Your task to perform on an android device: open app "Adobe Acrobat Reader" (install if not already installed), go to login, and select forgot password Image 0: 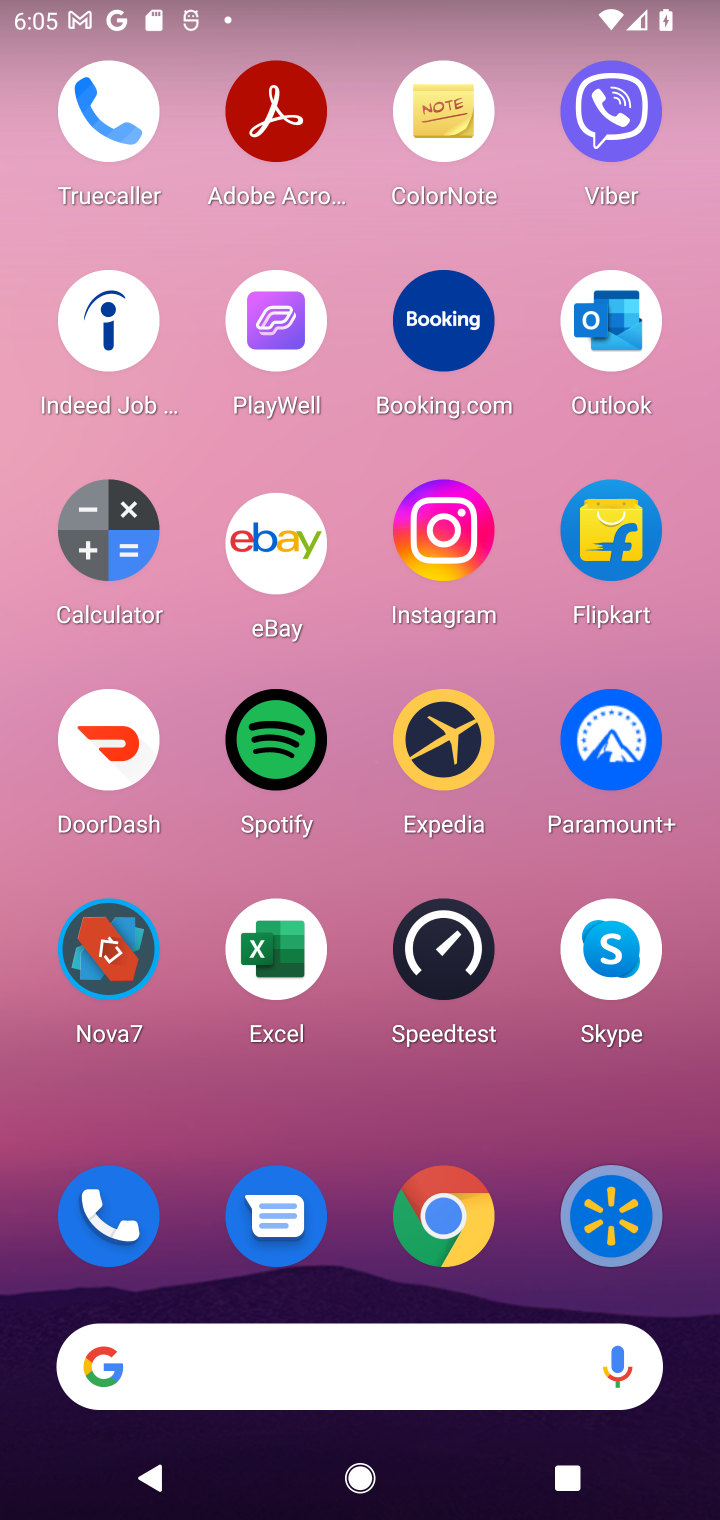
Step 0: drag from (535, 1133) to (489, 243)
Your task to perform on an android device: open app "Adobe Acrobat Reader" (install if not already installed), go to login, and select forgot password Image 1: 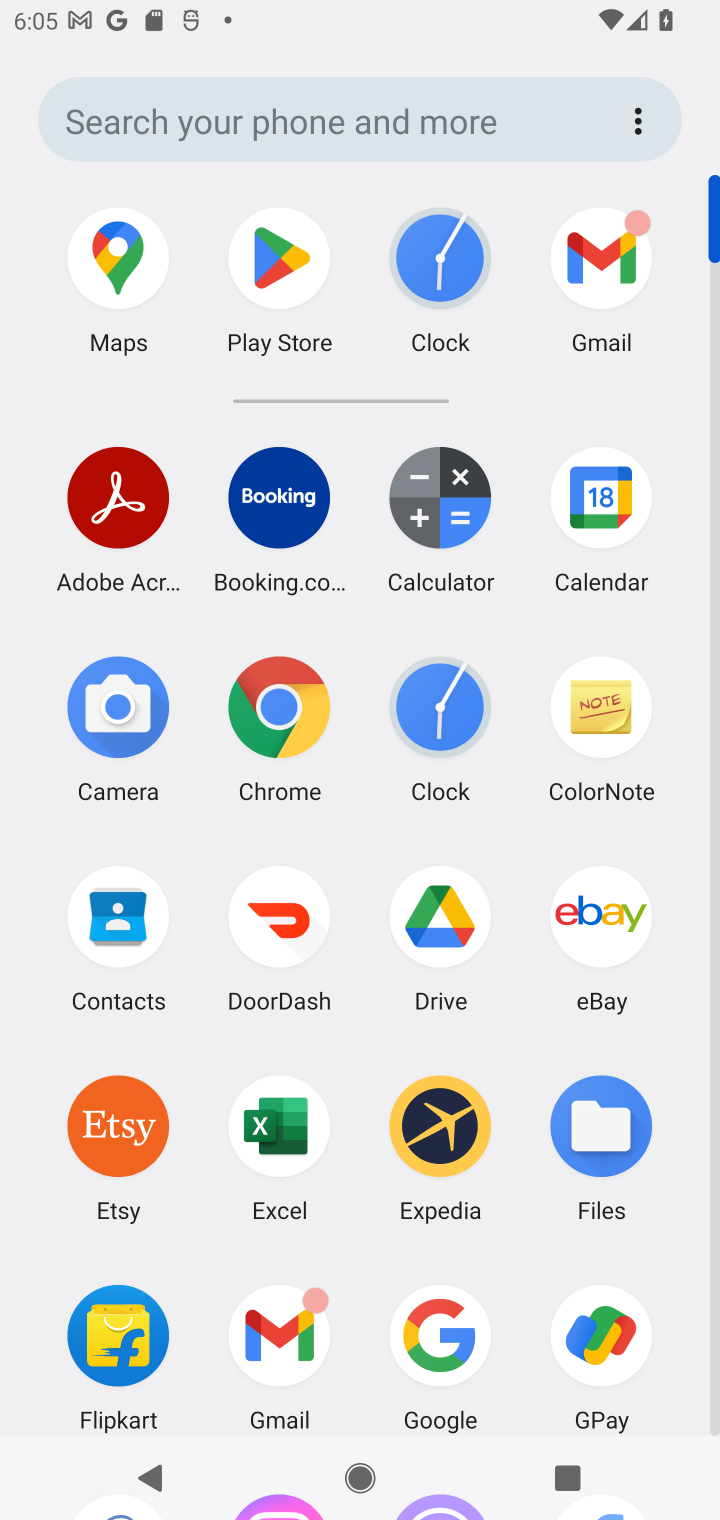
Step 1: drag from (522, 1298) to (495, 514)
Your task to perform on an android device: open app "Adobe Acrobat Reader" (install if not already installed), go to login, and select forgot password Image 2: 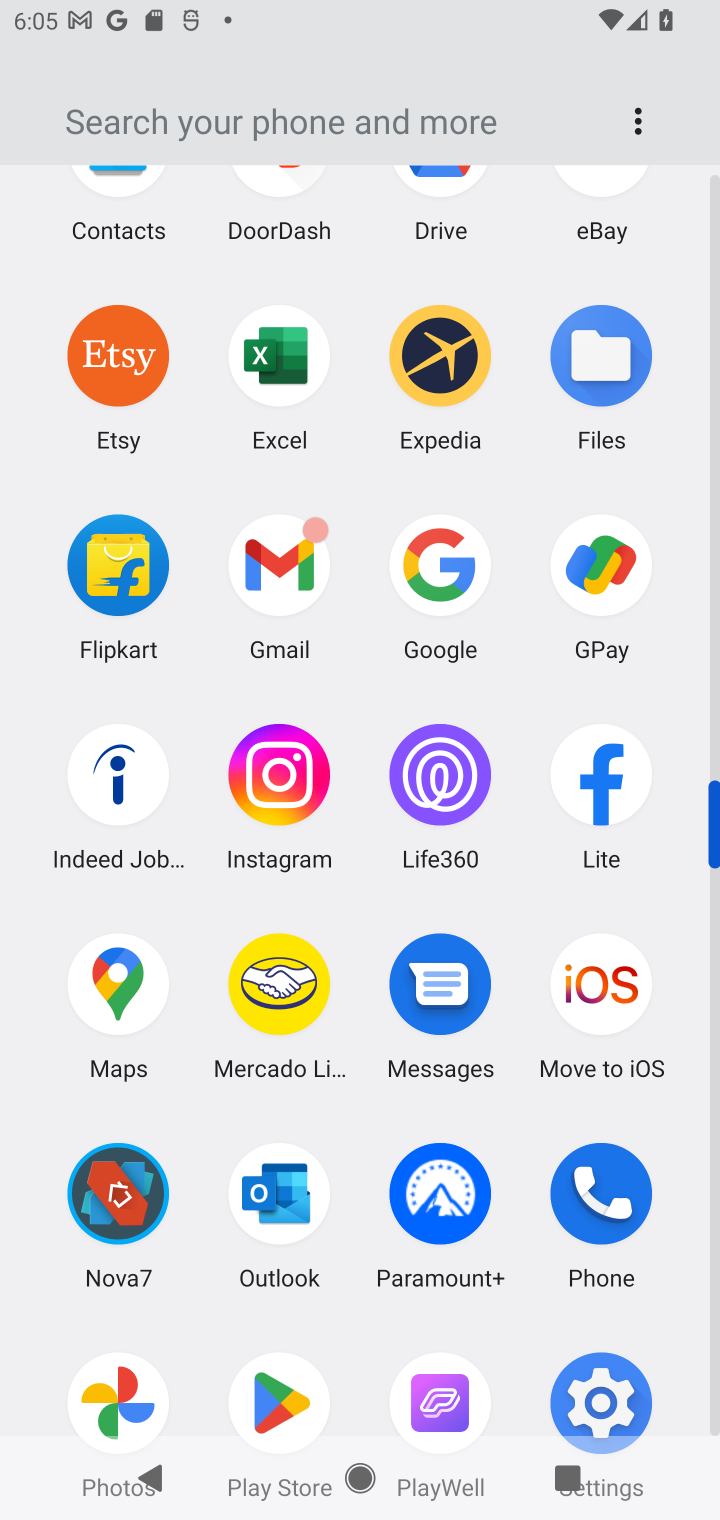
Step 2: click (281, 1401)
Your task to perform on an android device: open app "Adobe Acrobat Reader" (install if not already installed), go to login, and select forgot password Image 3: 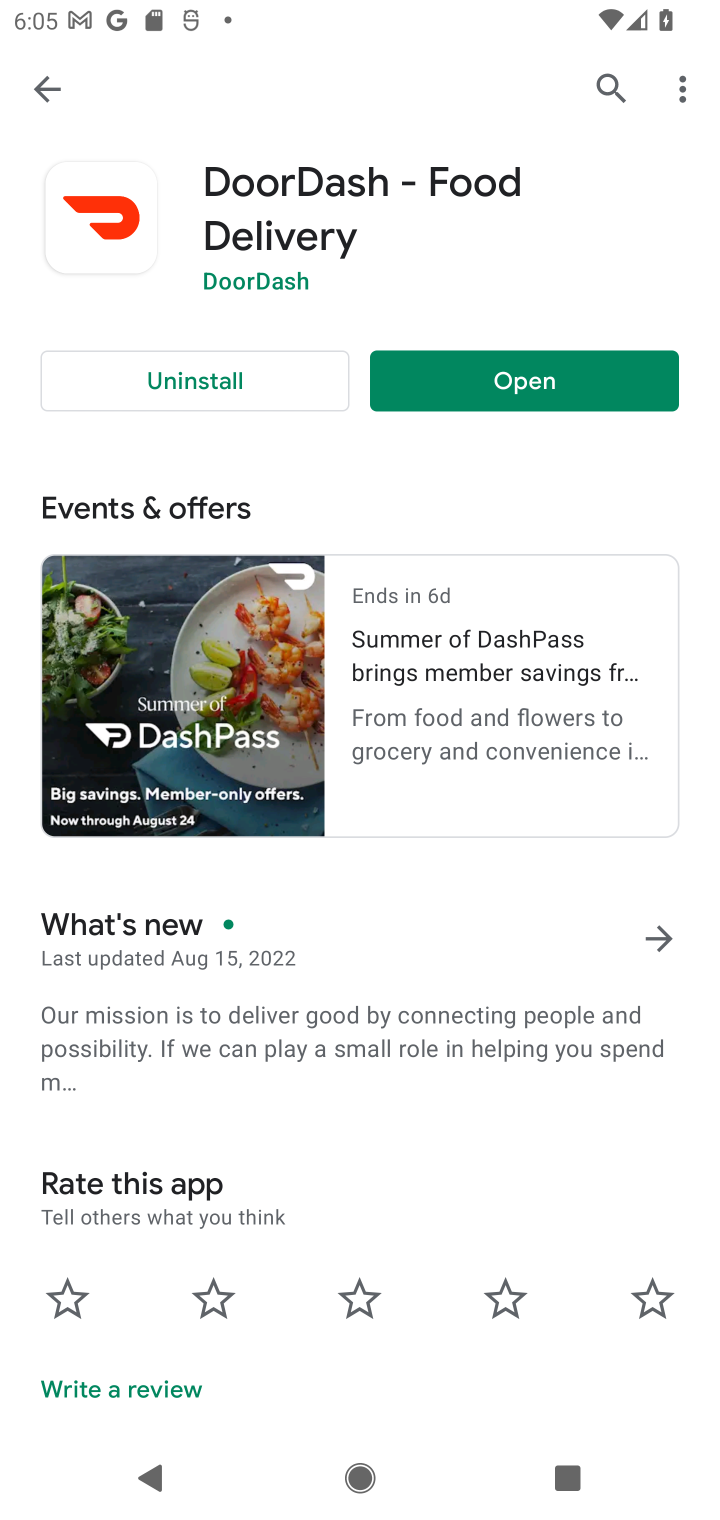
Step 3: click (611, 90)
Your task to perform on an android device: open app "Adobe Acrobat Reader" (install if not already installed), go to login, and select forgot password Image 4: 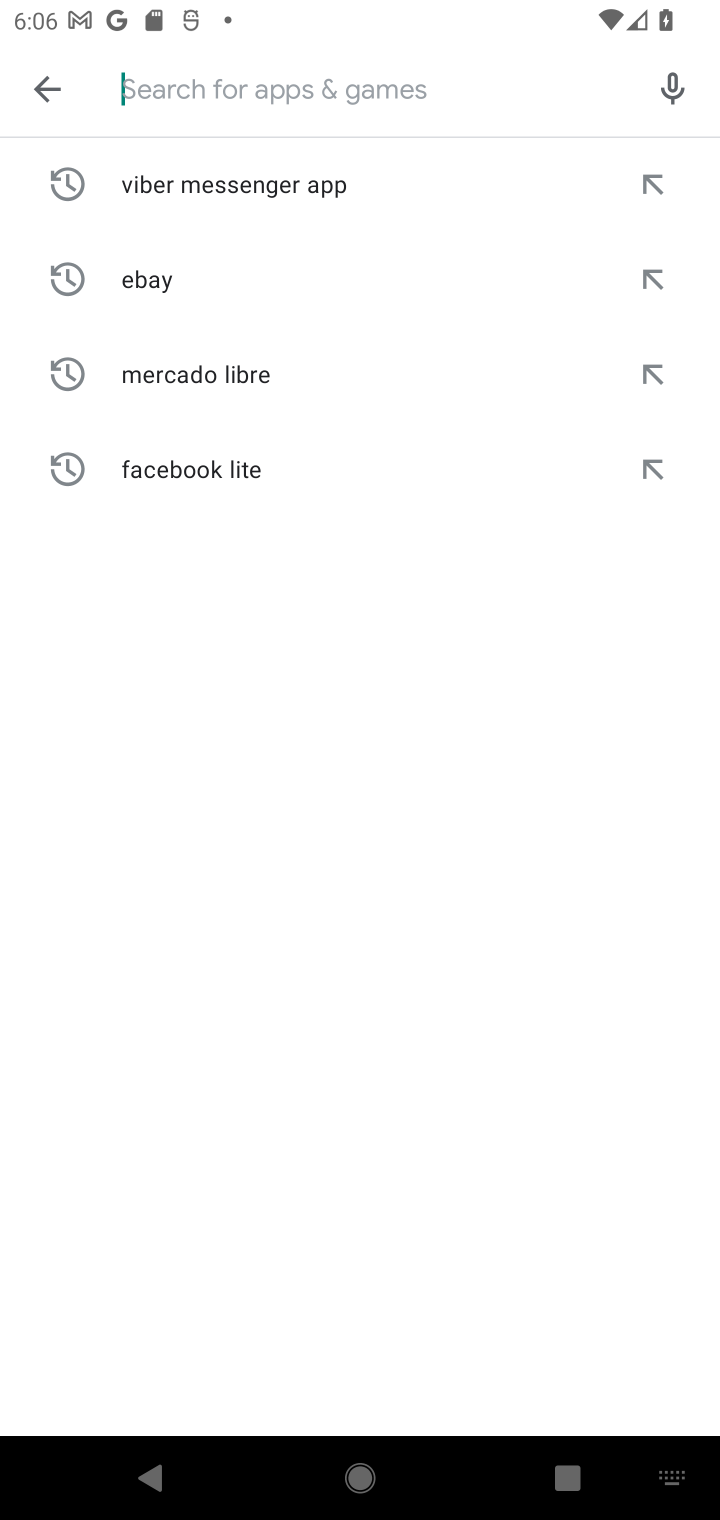
Step 4: type "Adobe Acrobat Reader"
Your task to perform on an android device: open app "Adobe Acrobat Reader" (install if not already installed), go to login, and select forgot password Image 5: 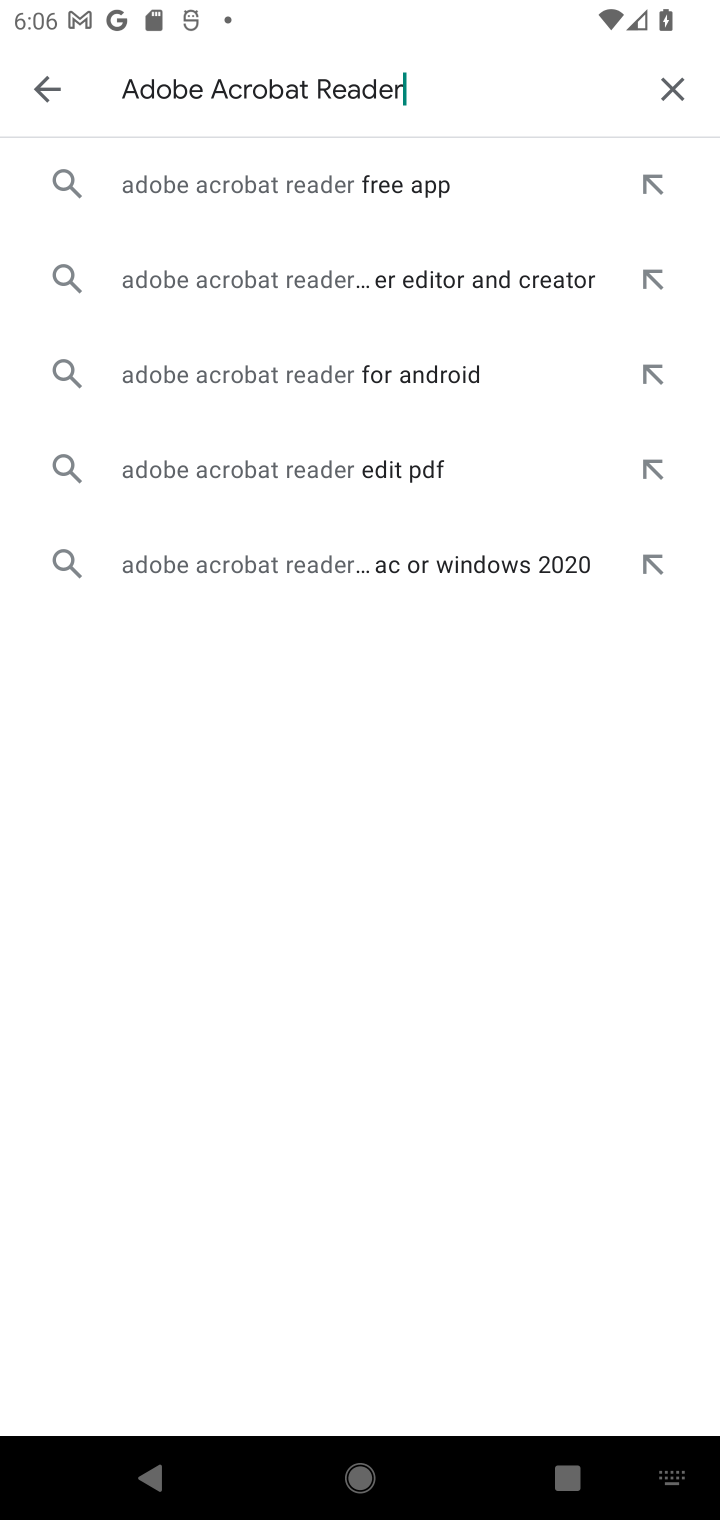
Step 5: click (202, 187)
Your task to perform on an android device: open app "Adobe Acrobat Reader" (install if not already installed), go to login, and select forgot password Image 6: 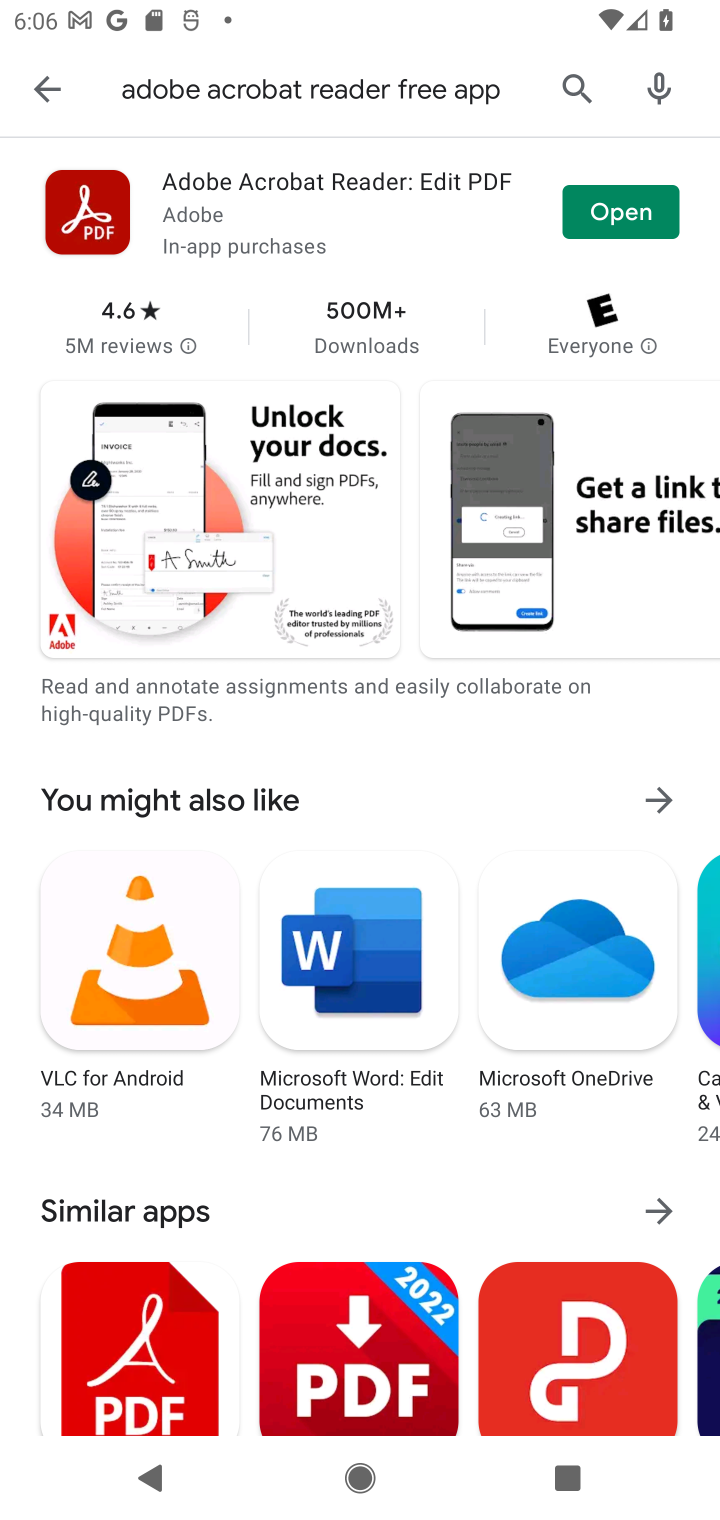
Step 6: click (618, 205)
Your task to perform on an android device: open app "Adobe Acrobat Reader" (install if not already installed), go to login, and select forgot password Image 7: 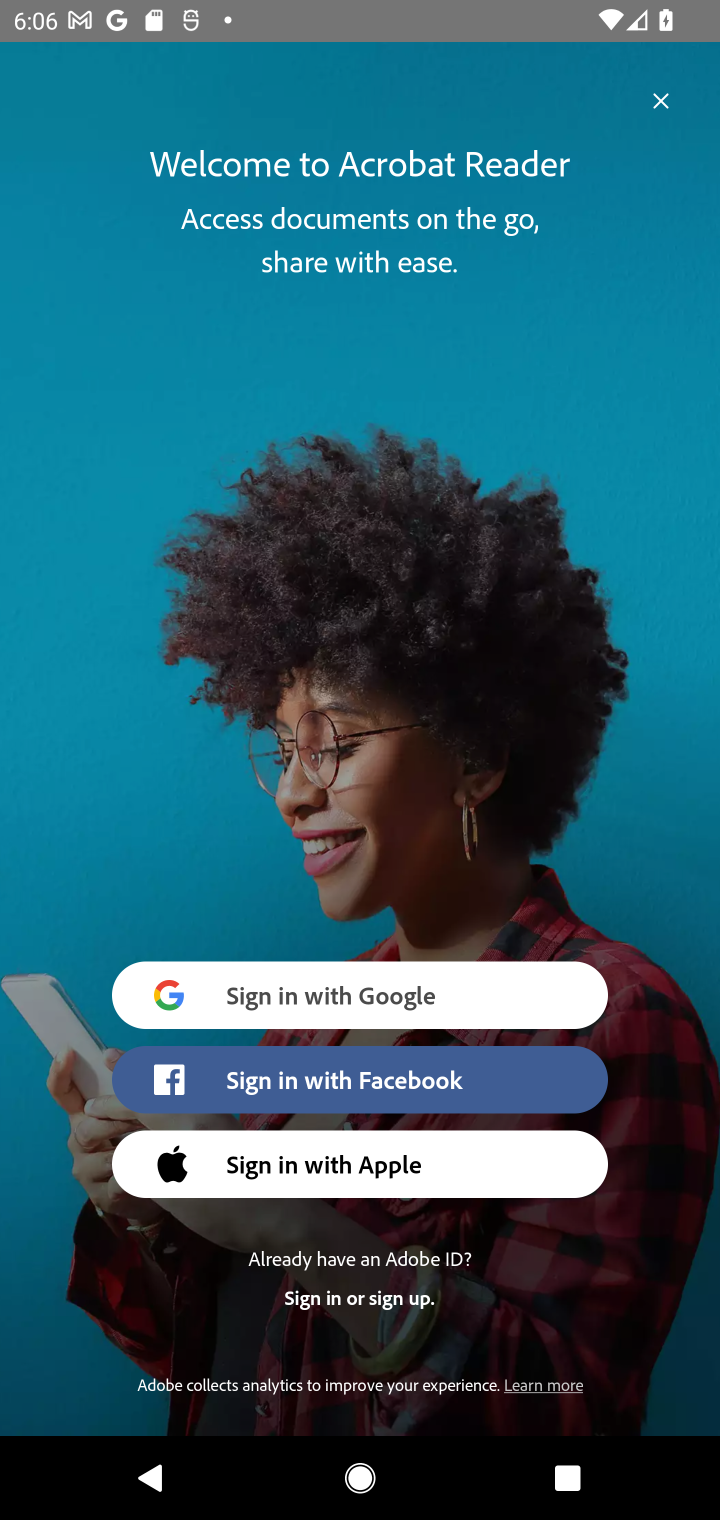
Step 7: click (323, 1303)
Your task to perform on an android device: open app "Adobe Acrobat Reader" (install if not already installed), go to login, and select forgot password Image 8: 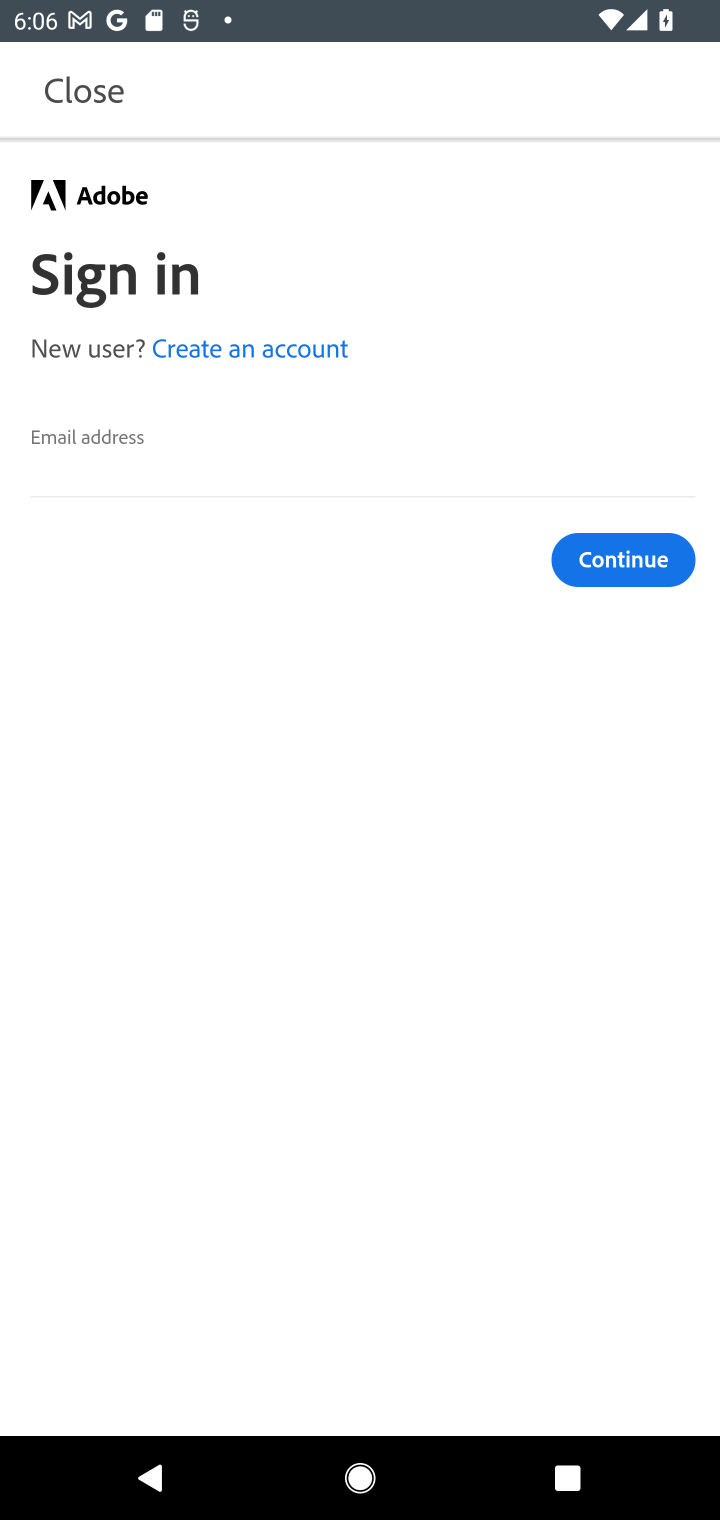
Step 8: press back button
Your task to perform on an android device: open app "Adobe Acrobat Reader" (install if not already installed), go to login, and select forgot password Image 9: 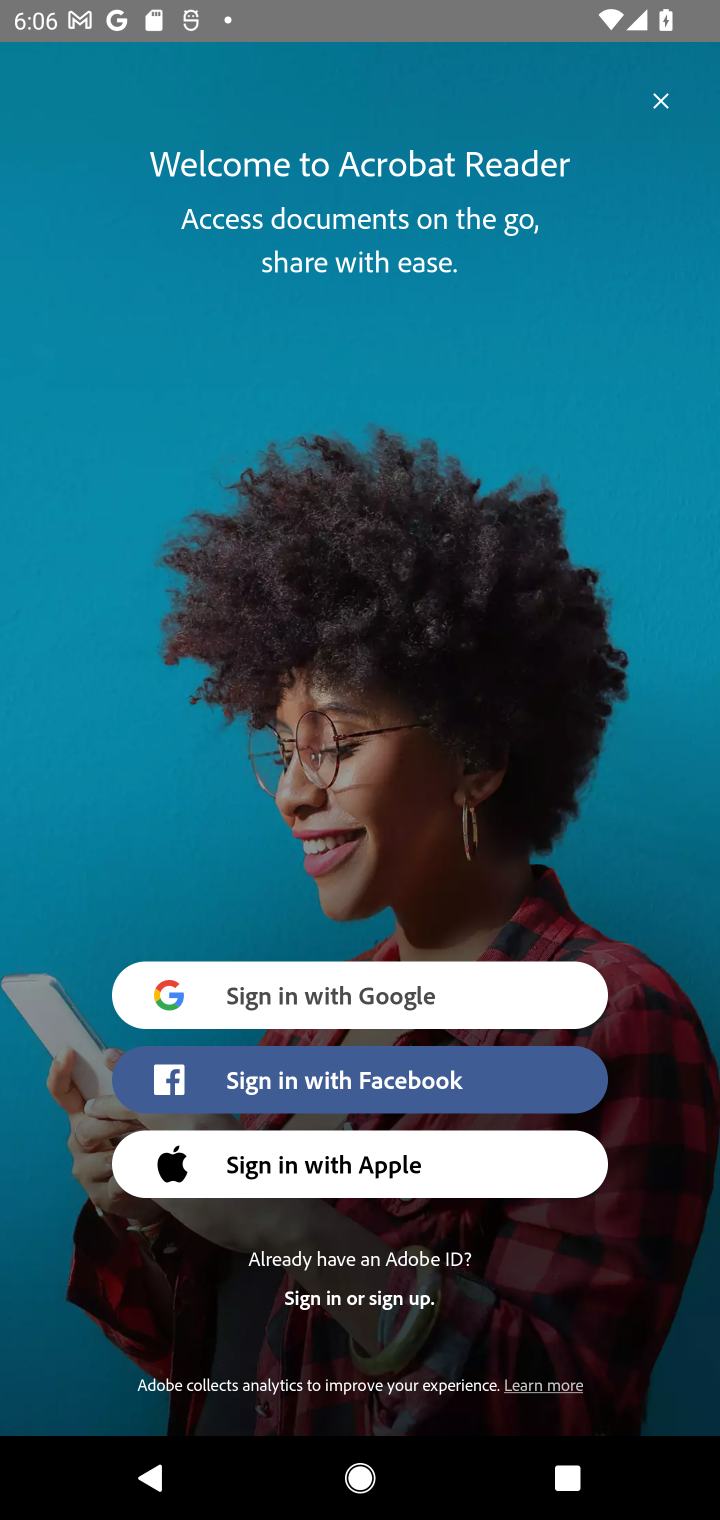
Step 9: click (299, 996)
Your task to perform on an android device: open app "Adobe Acrobat Reader" (install if not already installed), go to login, and select forgot password Image 10: 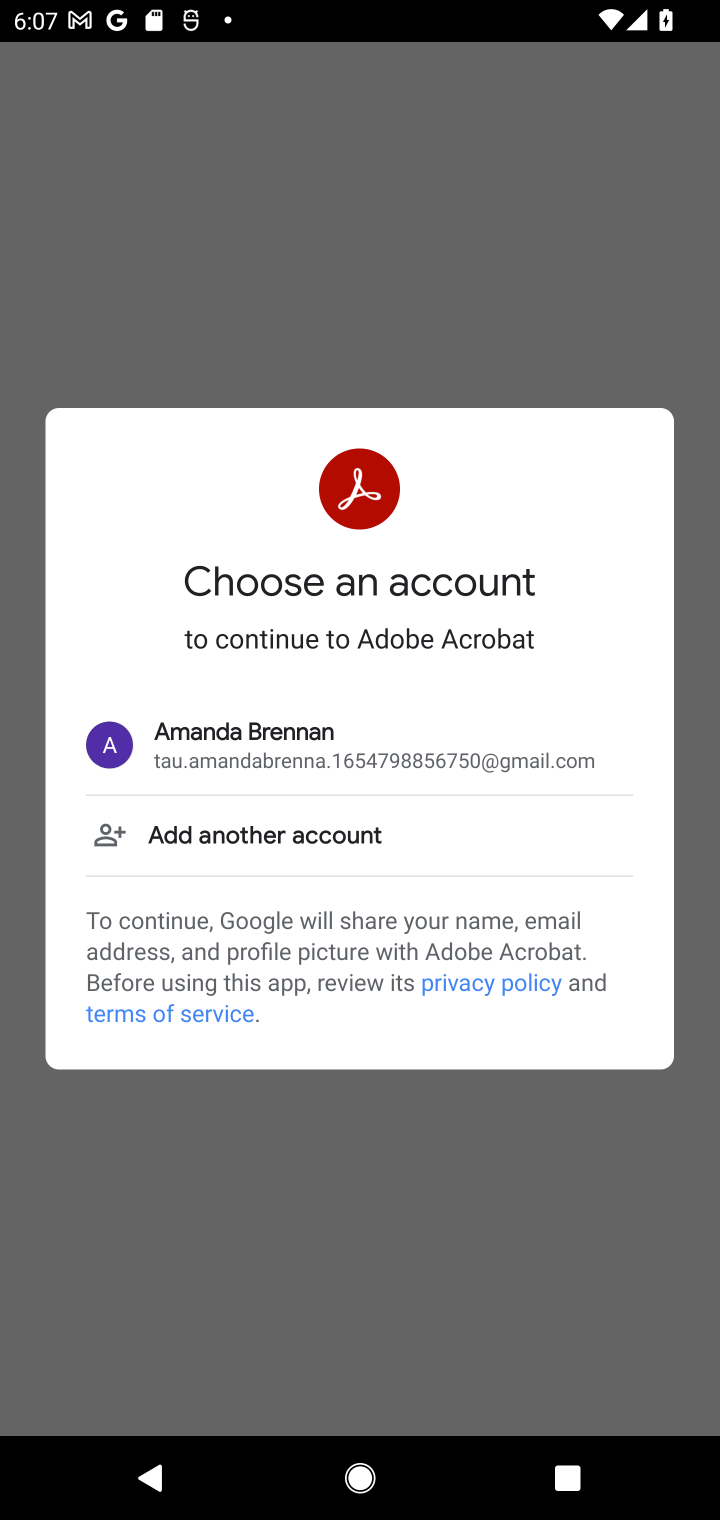
Step 10: task complete